Your task to perform on an android device: Go to location settings Image 0: 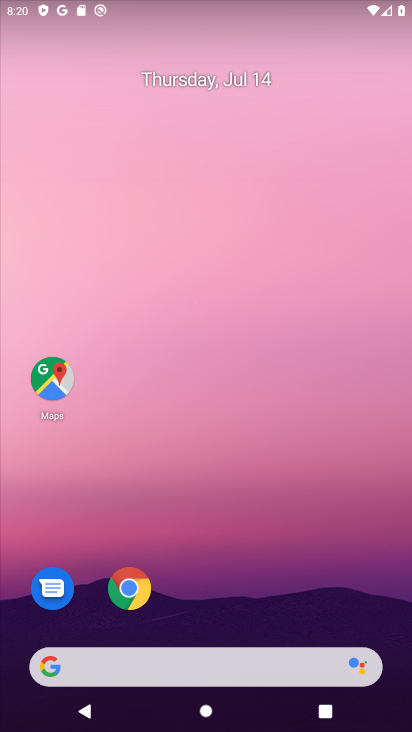
Step 0: drag from (252, 695) to (238, 273)
Your task to perform on an android device: Go to location settings Image 1: 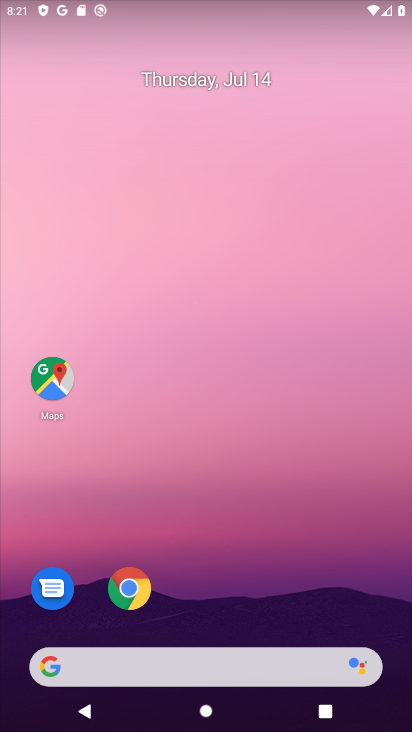
Step 1: drag from (234, 576) to (260, 147)
Your task to perform on an android device: Go to location settings Image 2: 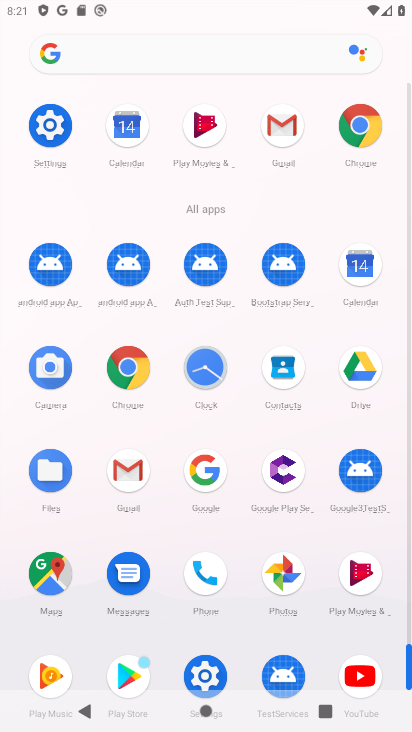
Step 2: click (51, 132)
Your task to perform on an android device: Go to location settings Image 3: 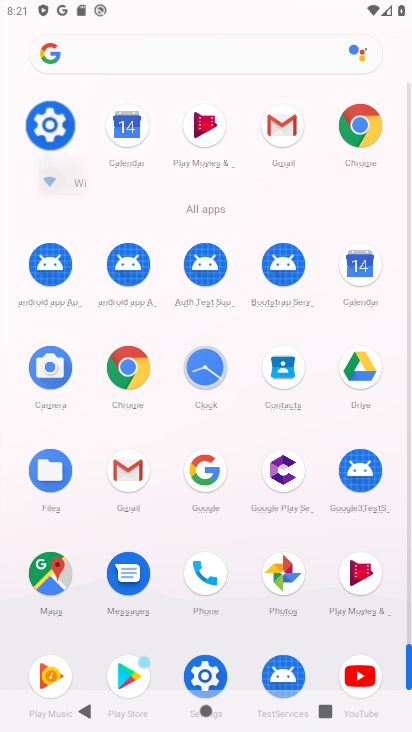
Step 3: click (51, 132)
Your task to perform on an android device: Go to location settings Image 4: 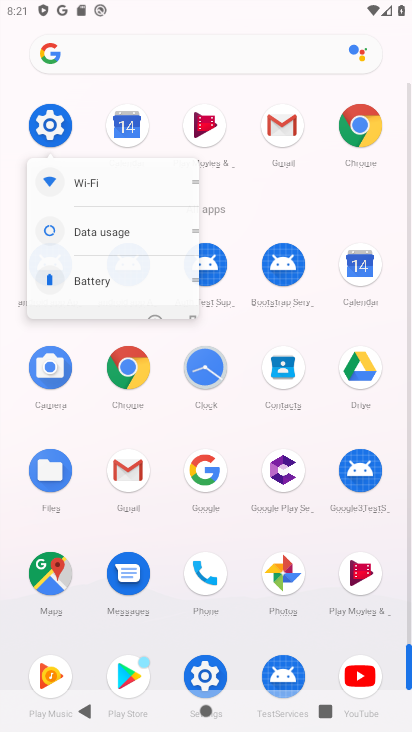
Step 4: click (56, 131)
Your task to perform on an android device: Go to location settings Image 5: 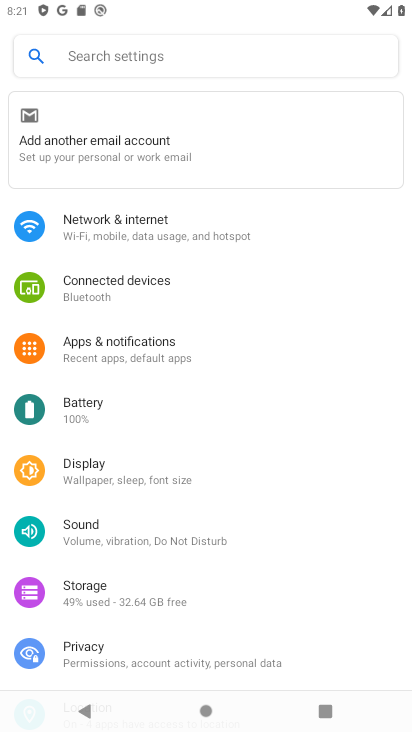
Step 5: drag from (120, 543) to (133, 245)
Your task to perform on an android device: Go to location settings Image 6: 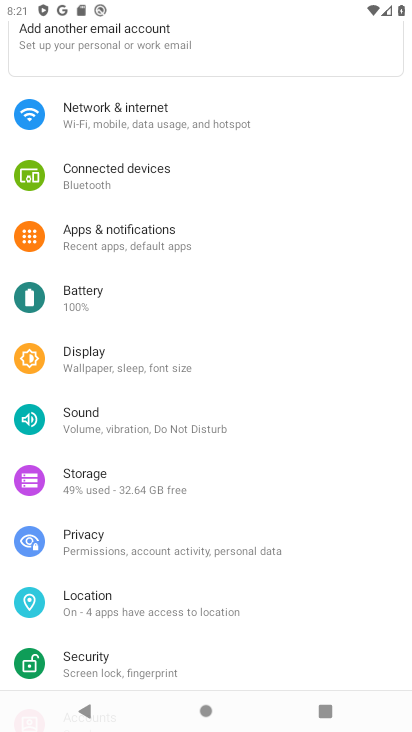
Step 6: drag from (143, 484) to (141, 266)
Your task to perform on an android device: Go to location settings Image 7: 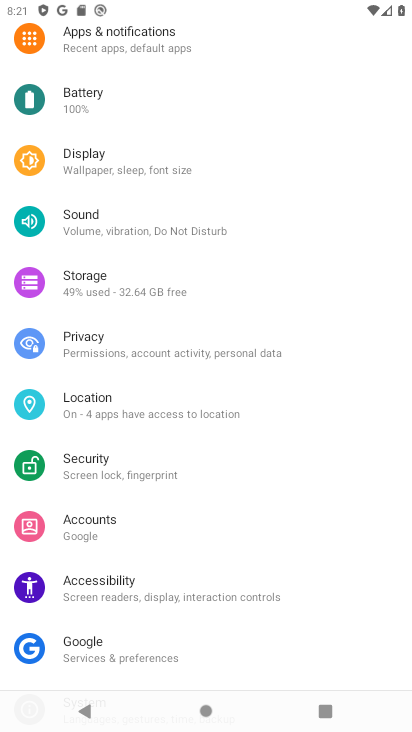
Step 7: click (95, 396)
Your task to perform on an android device: Go to location settings Image 8: 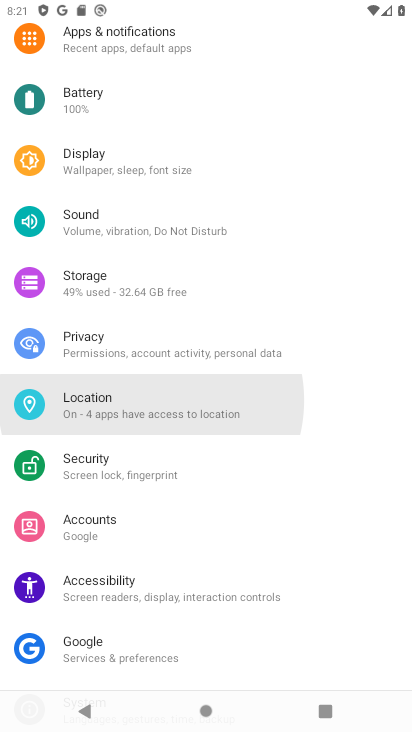
Step 8: click (96, 395)
Your task to perform on an android device: Go to location settings Image 9: 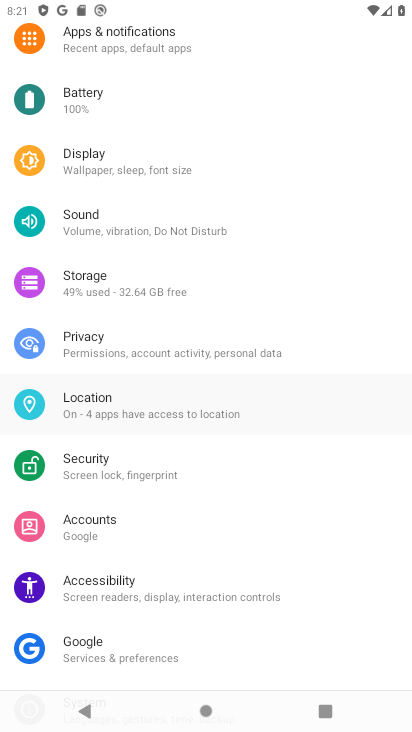
Step 9: click (97, 396)
Your task to perform on an android device: Go to location settings Image 10: 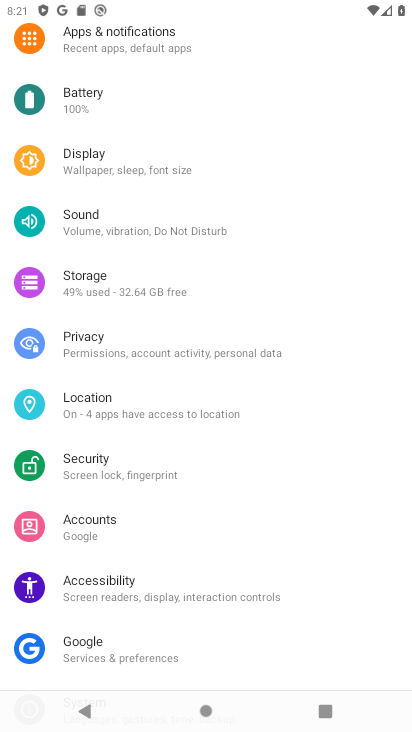
Step 10: click (97, 396)
Your task to perform on an android device: Go to location settings Image 11: 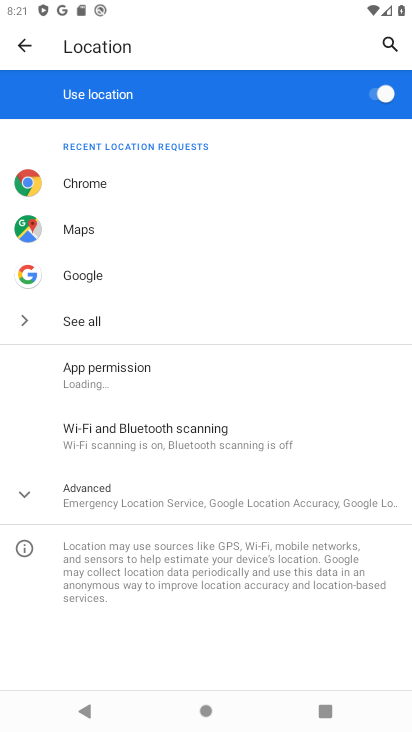
Step 11: task complete